Your task to perform on an android device: snooze an email in the gmail app Image 0: 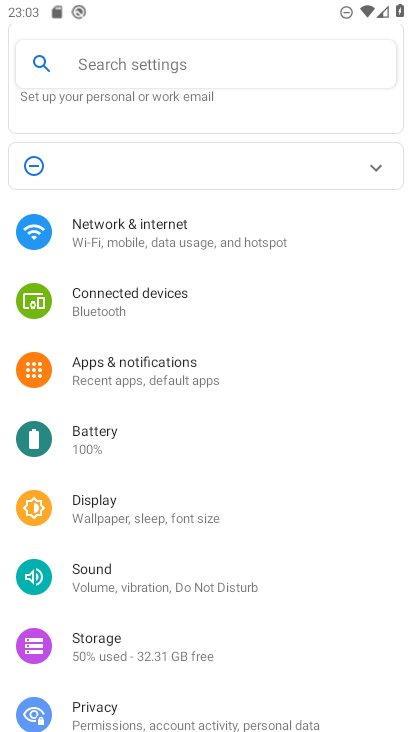
Step 0: press home button
Your task to perform on an android device: snooze an email in the gmail app Image 1: 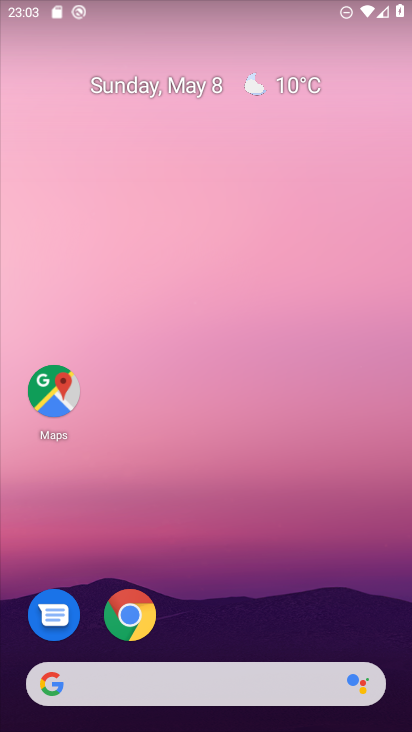
Step 1: drag from (245, 568) to (324, 136)
Your task to perform on an android device: snooze an email in the gmail app Image 2: 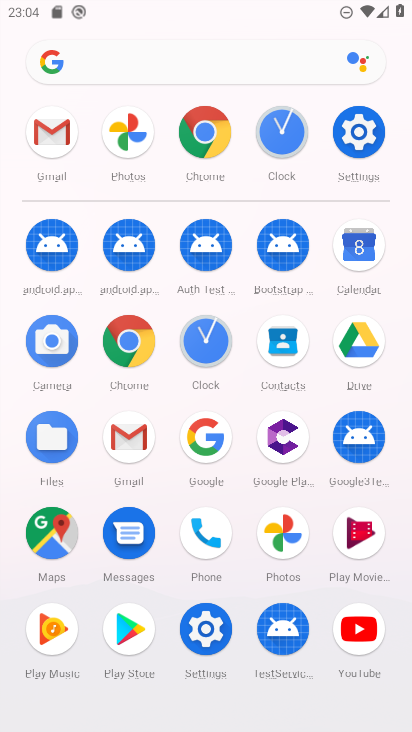
Step 2: click (45, 139)
Your task to perform on an android device: snooze an email in the gmail app Image 3: 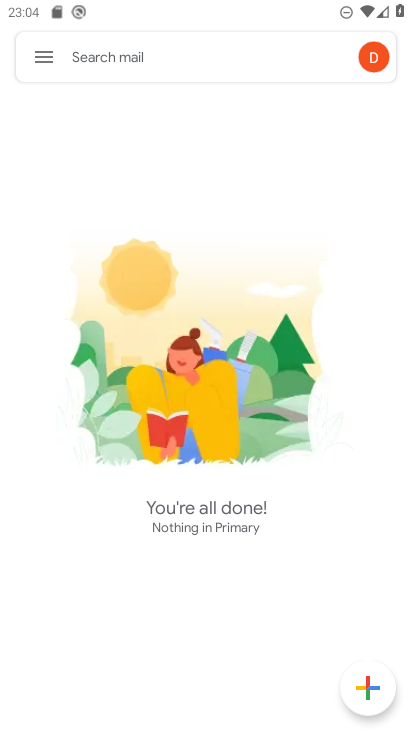
Step 3: click (48, 49)
Your task to perform on an android device: snooze an email in the gmail app Image 4: 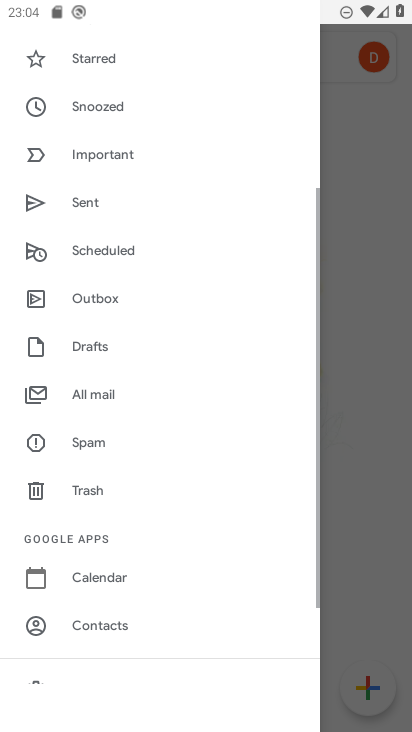
Step 4: click (102, 393)
Your task to perform on an android device: snooze an email in the gmail app Image 5: 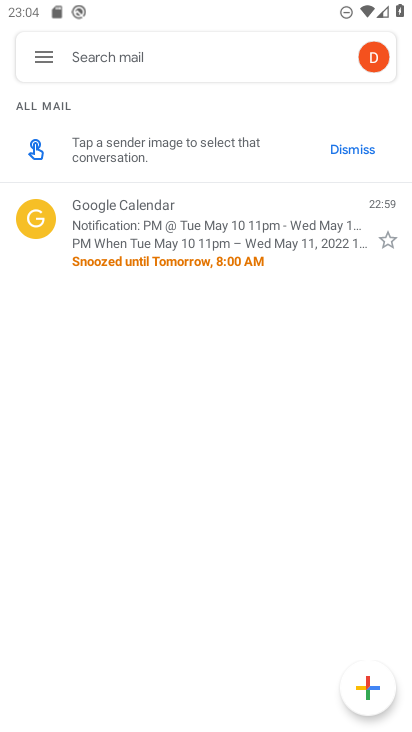
Step 5: click (179, 233)
Your task to perform on an android device: snooze an email in the gmail app Image 6: 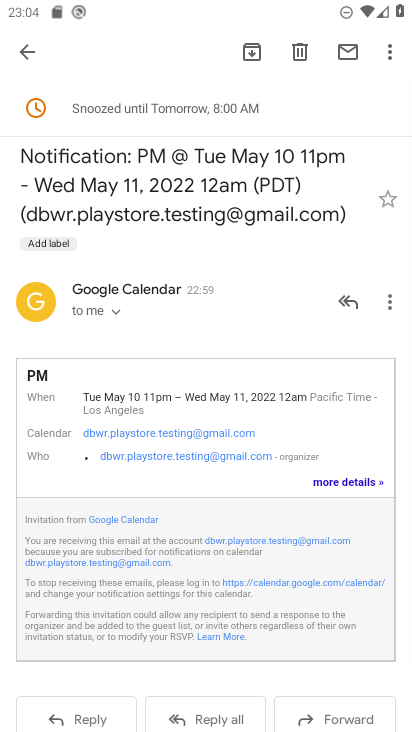
Step 6: click (395, 43)
Your task to perform on an android device: snooze an email in the gmail app Image 7: 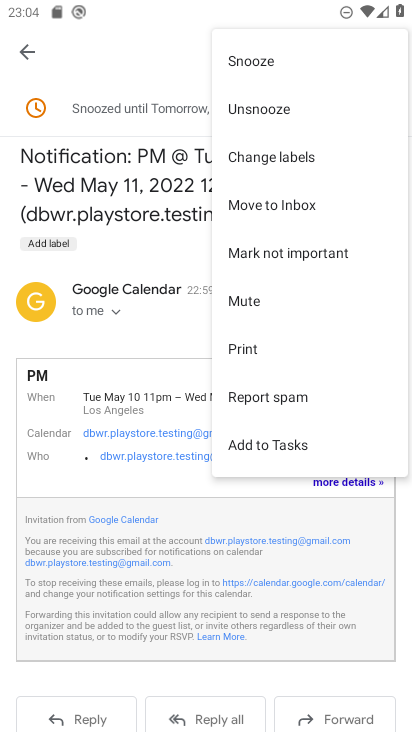
Step 7: click (303, 36)
Your task to perform on an android device: snooze an email in the gmail app Image 8: 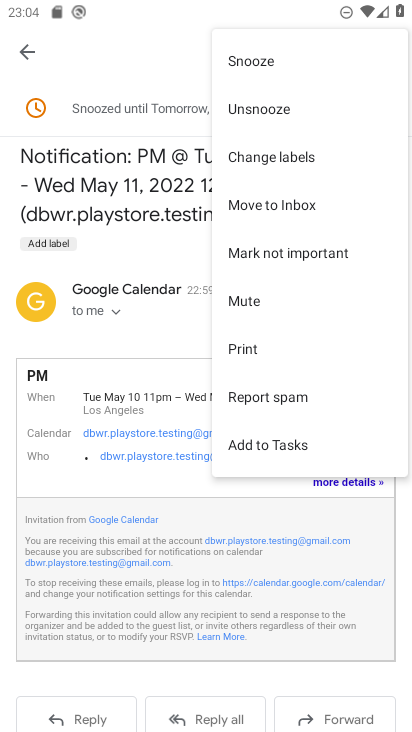
Step 8: click (276, 60)
Your task to perform on an android device: snooze an email in the gmail app Image 9: 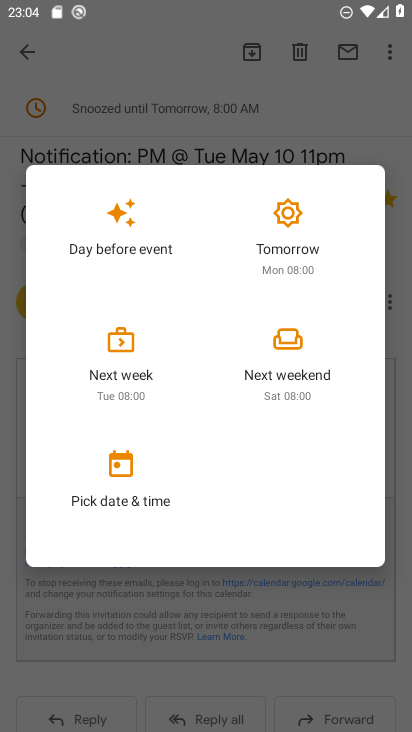
Step 9: click (132, 243)
Your task to perform on an android device: snooze an email in the gmail app Image 10: 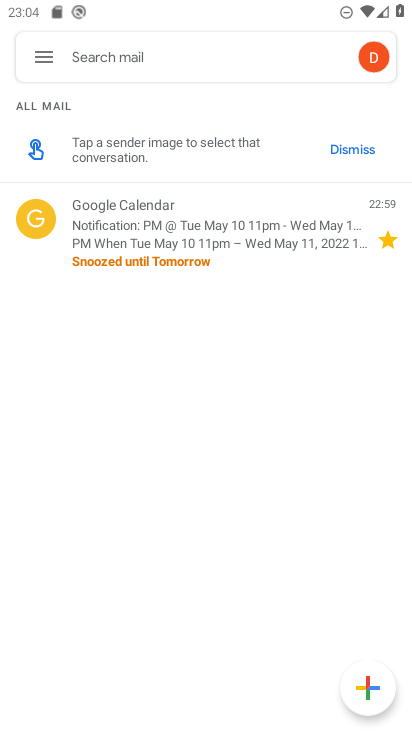
Step 10: task complete